Your task to perform on an android device: Open the Play Movies app and select the watchlist tab. Image 0: 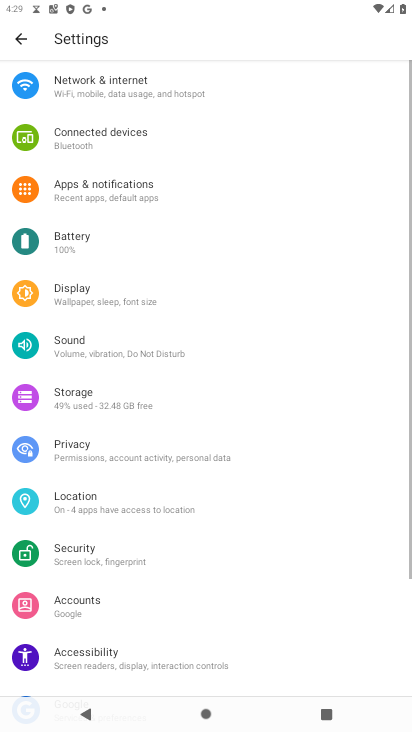
Step 0: press home button
Your task to perform on an android device: Open the Play Movies app and select the watchlist tab. Image 1: 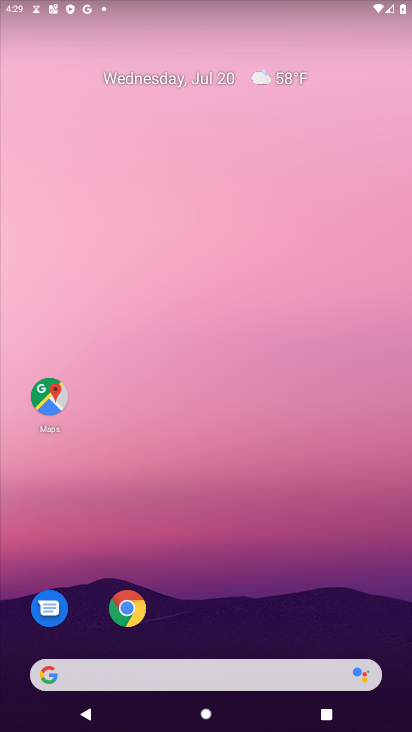
Step 1: drag from (187, 611) to (249, 21)
Your task to perform on an android device: Open the Play Movies app and select the watchlist tab. Image 2: 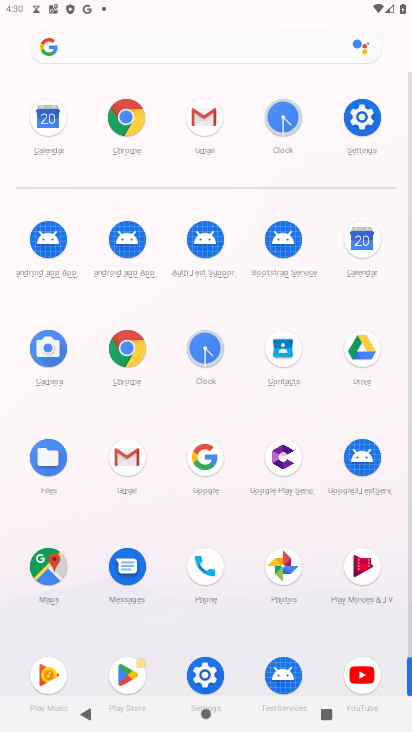
Step 2: click (352, 595)
Your task to perform on an android device: Open the Play Movies app and select the watchlist tab. Image 3: 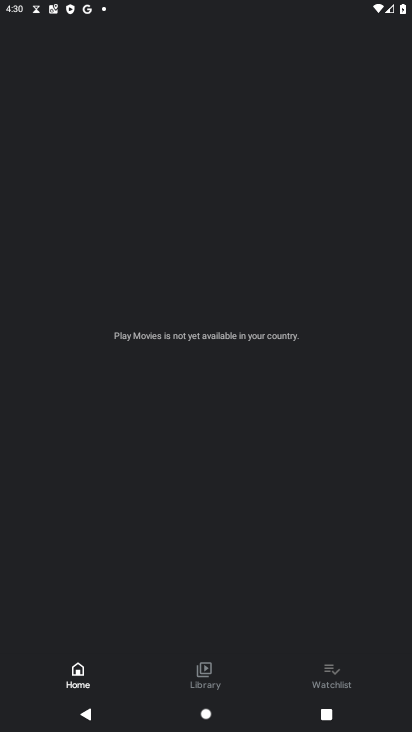
Step 3: click (339, 670)
Your task to perform on an android device: Open the Play Movies app and select the watchlist tab. Image 4: 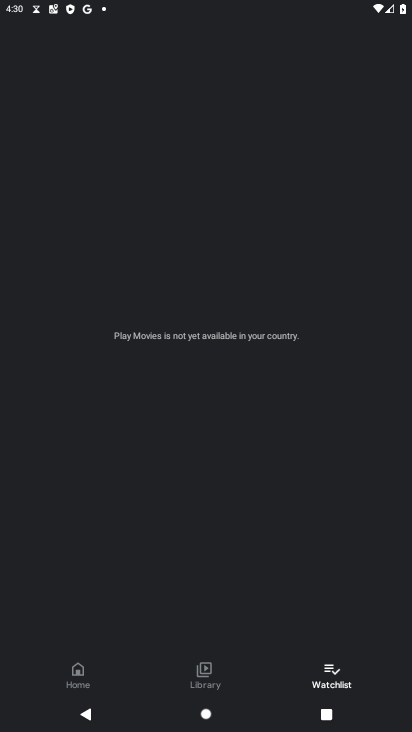
Step 4: task complete